Your task to perform on an android device: toggle pop-ups in chrome Image 0: 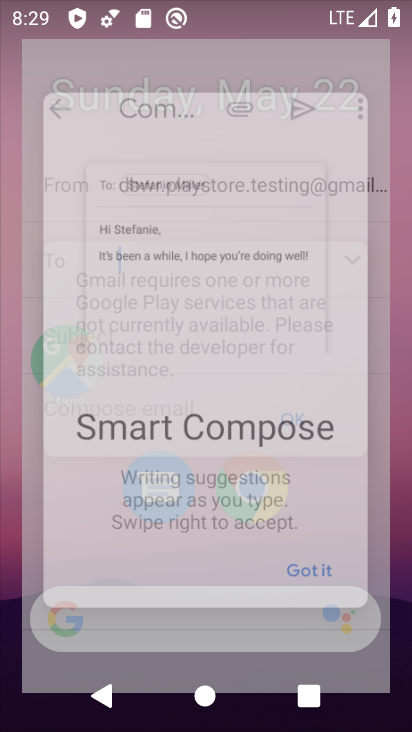
Step 0: drag from (339, 517) to (278, 66)
Your task to perform on an android device: toggle pop-ups in chrome Image 1: 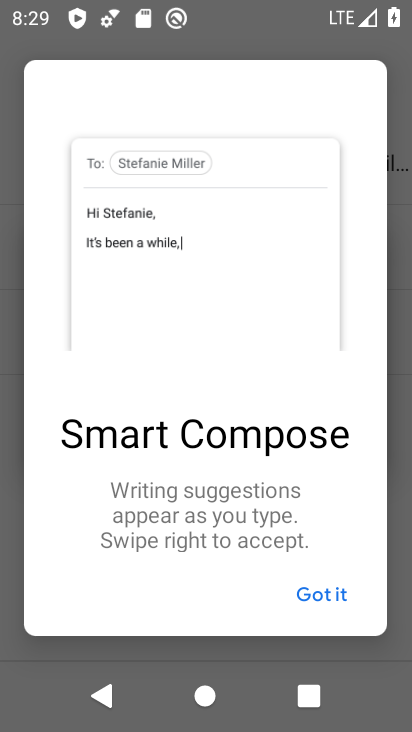
Step 1: press home button
Your task to perform on an android device: toggle pop-ups in chrome Image 2: 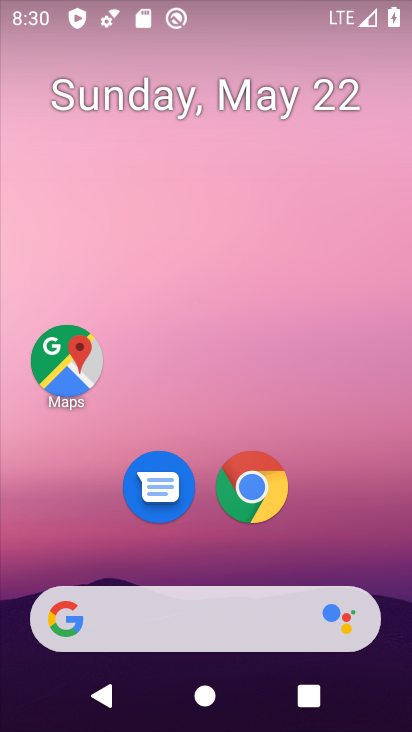
Step 2: click (233, 500)
Your task to perform on an android device: toggle pop-ups in chrome Image 3: 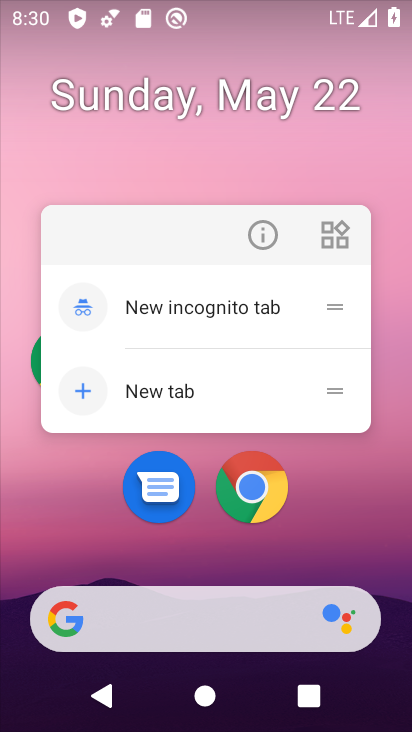
Step 3: click (246, 486)
Your task to perform on an android device: toggle pop-ups in chrome Image 4: 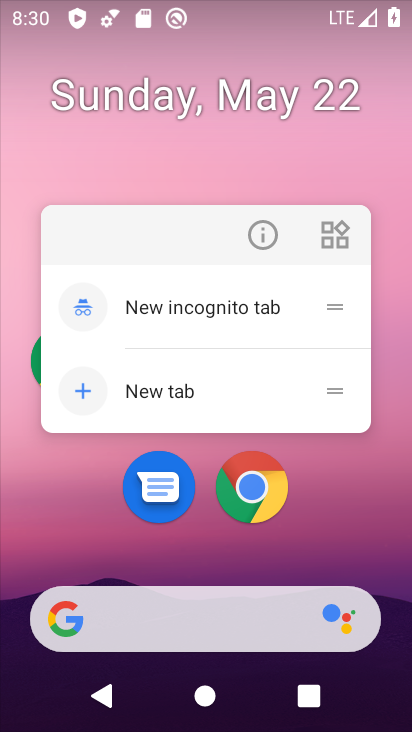
Step 4: click (246, 486)
Your task to perform on an android device: toggle pop-ups in chrome Image 5: 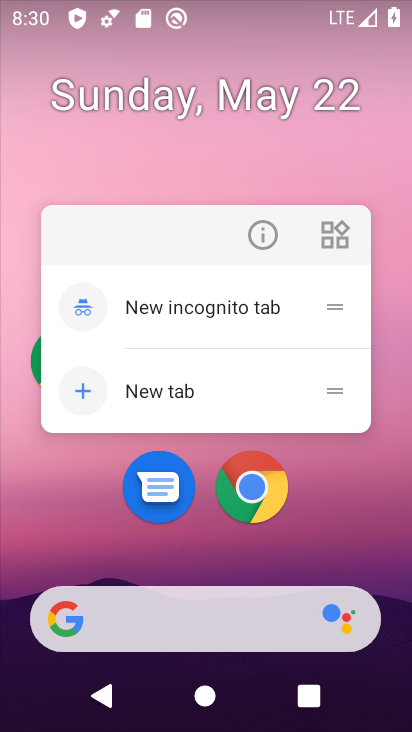
Step 5: click (246, 486)
Your task to perform on an android device: toggle pop-ups in chrome Image 6: 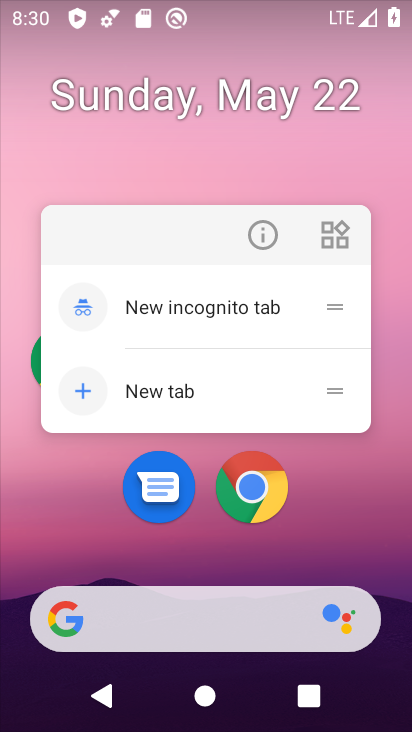
Step 6: click (246, 486)
Your task to perform on an android device: toggle pop-ups in chrome Image 7: 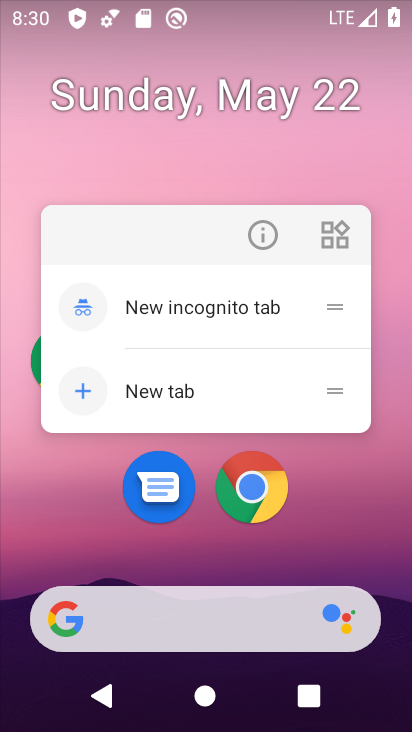
Step 7: drag from (363, 568) to (320, 62)
Your task to perform on an android device: toggle pop-ups in chrome Image 8: 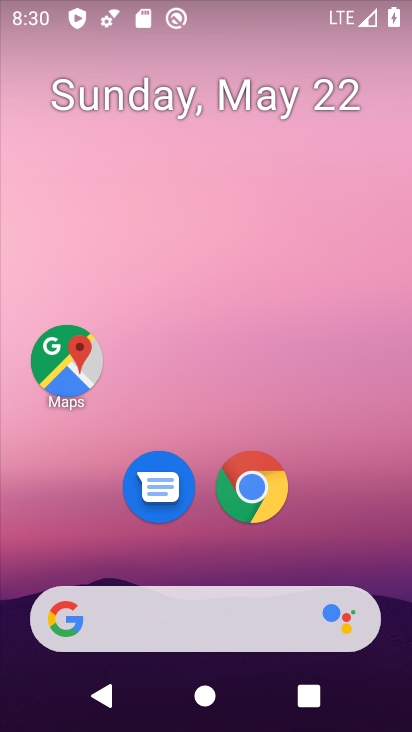
Step 8: drag from (348, 522) to (304, 1)
Your task to perform on an android device: toggle pop-ups in chrome Image 9: 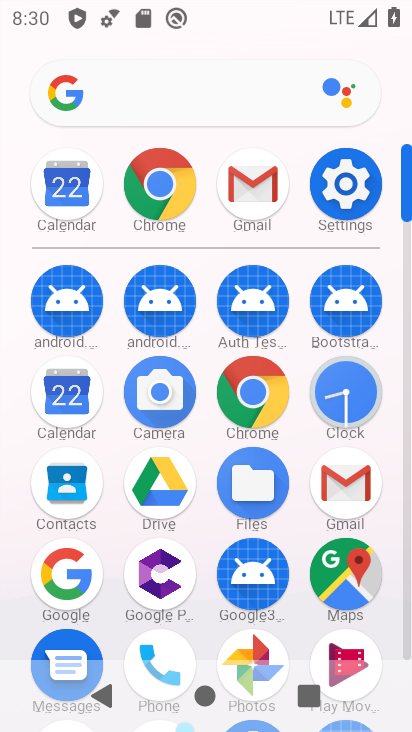
Step 9: click (162, 172)
Your task to perform on an android device: toggle pop-ups in chrome Image 10: 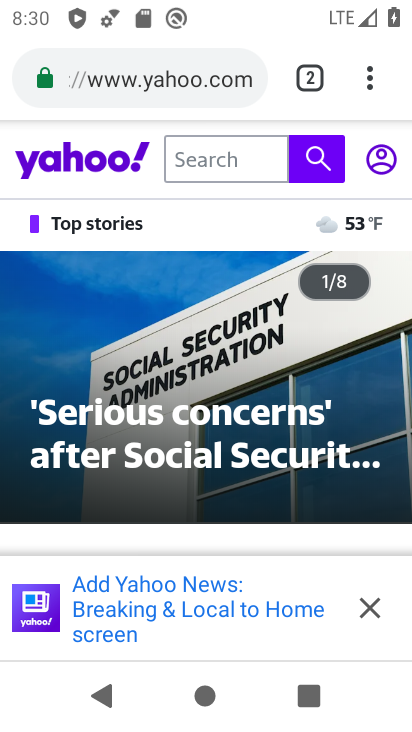
Step 10: drag from (367, 88) to (150, 564)
Your task to perform on an android device: toggle pop-ups in chrome Image 11: 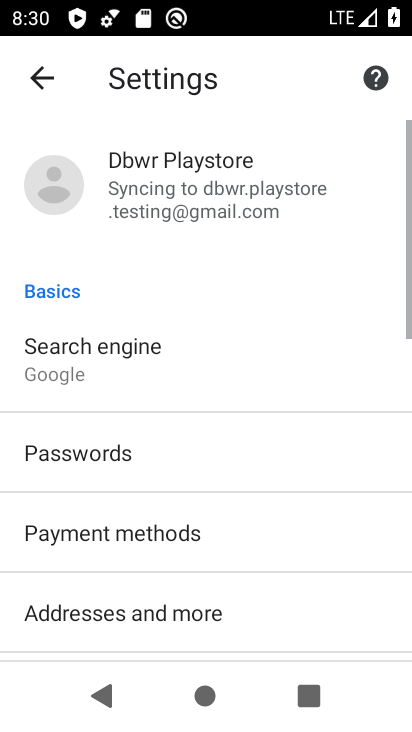
Step 11: drag from (145, 602) to (136, 213)
Your task to perform on an android device: toggle pop-ups in chrome Image 12: 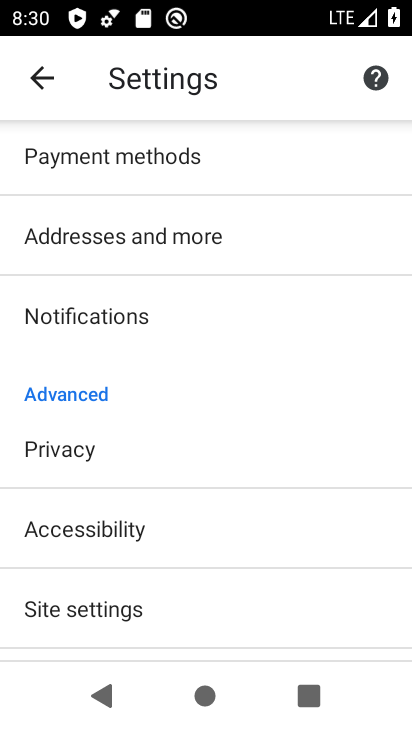
Step 12: drag from (187, 607) to (168, 182)
Your task to perform on an android device: toggle pop-ups in chrome Image 13: 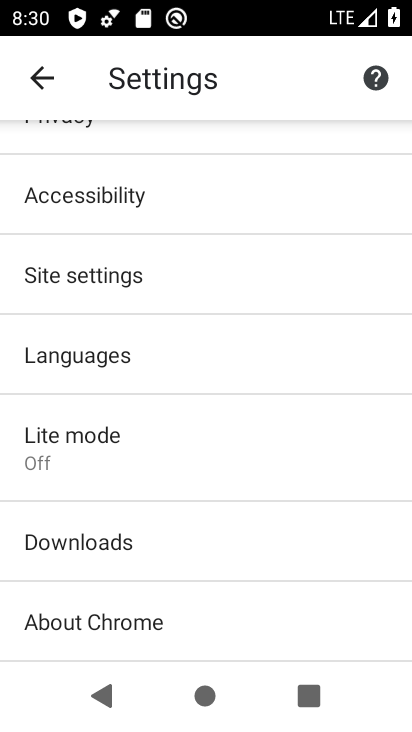
Step 13: click (87, 279)
Your task to perform on an android device: toggle pop-ups in chrome Image 14: 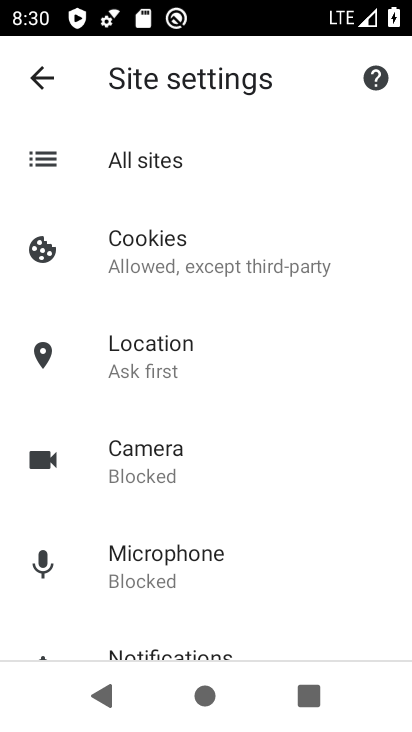
Step 14: drag from (229, 579) to (187, 260)
Your task to perform on an android device: toggle pop-ups in chrome Image 15: 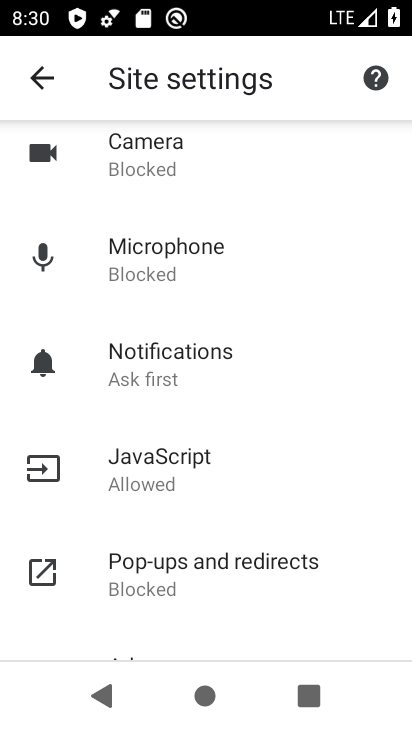
Step 15: click (238, 577)
Your task to perform on an android device: toggle pop-ups in chrome Image 16: 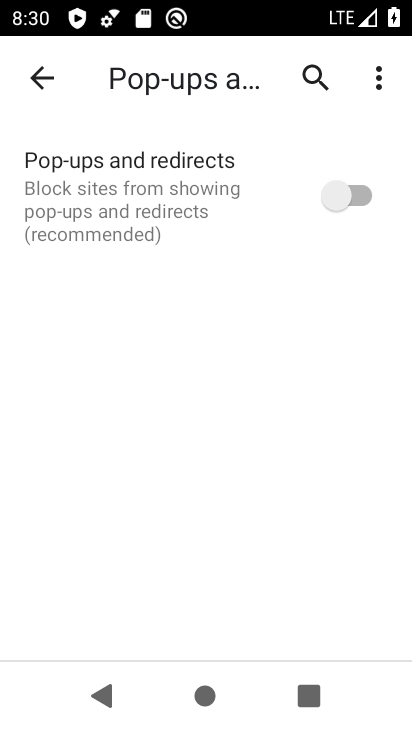
Step 16: click (357, 213)
Your task to perform on an android device: toggle pop-ups in chrome Image 17: 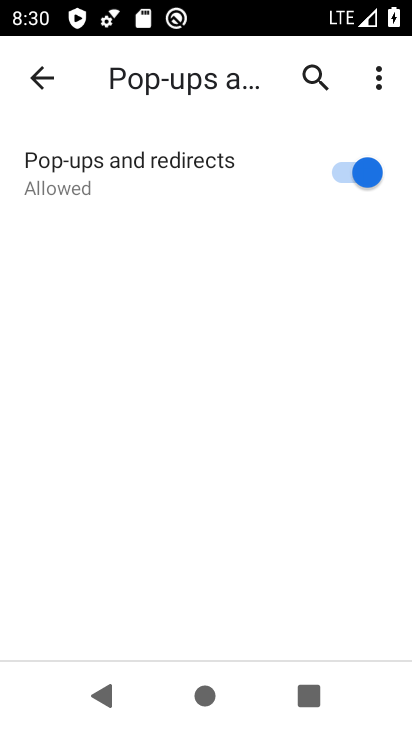
Step 17: task complete